Your task to perform on an android device: star an email in the gmail app Image 0: 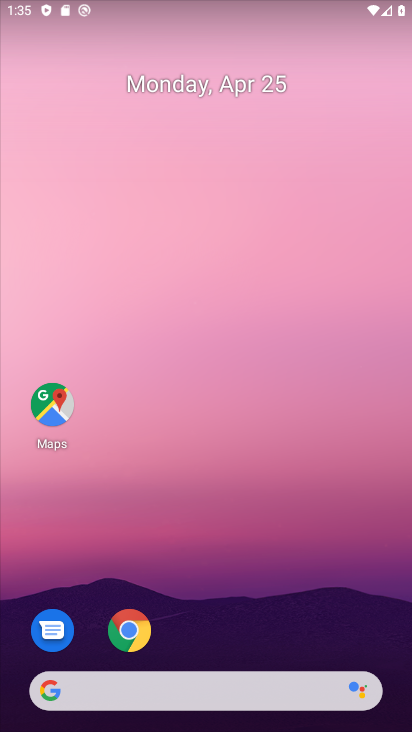
Step 0: drag from (207, 668) to (167, 91)
Your task to perform on an android device: star an email in the gmail app Image 1: 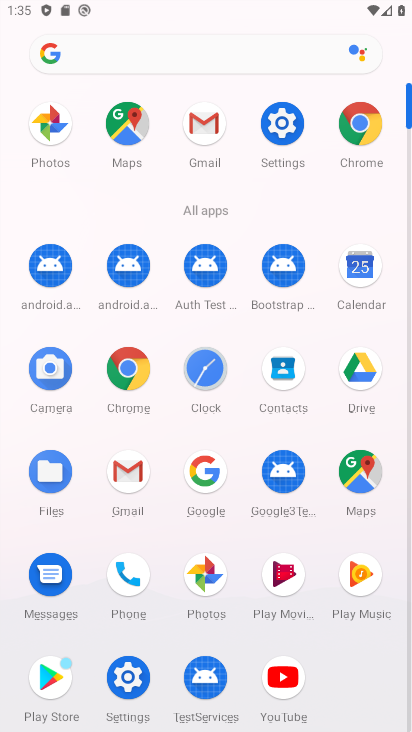
Step 1: click (135, 470)
Your task to perform on an android device: star an email in the gmail app Image 2: 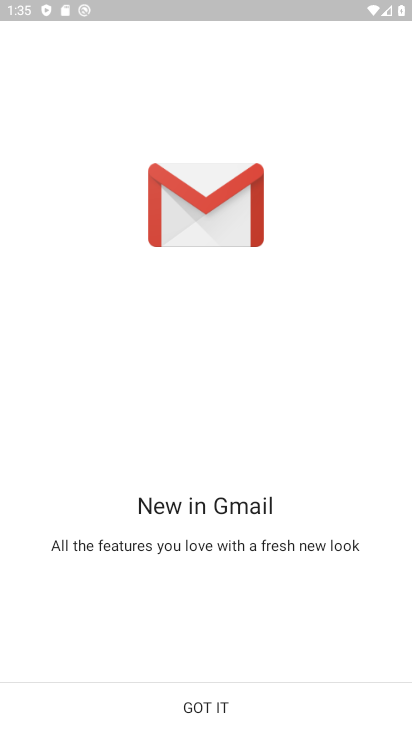
Step 2: click (204, 707)
Your task to perform on an android device: star an email in the gmail app Image 3: 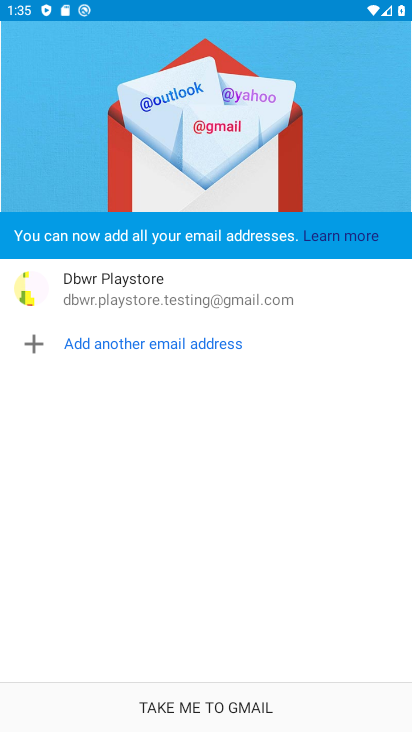
Step 3: click (204, 707)
Your task to perform on an android device: star an email in the gmail app Image 4: 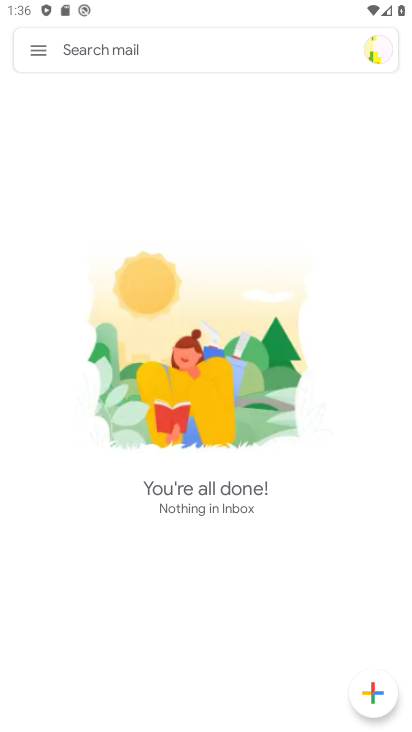
Step 4: task complete